Your task to perform on an android device: Open maps Image 0: 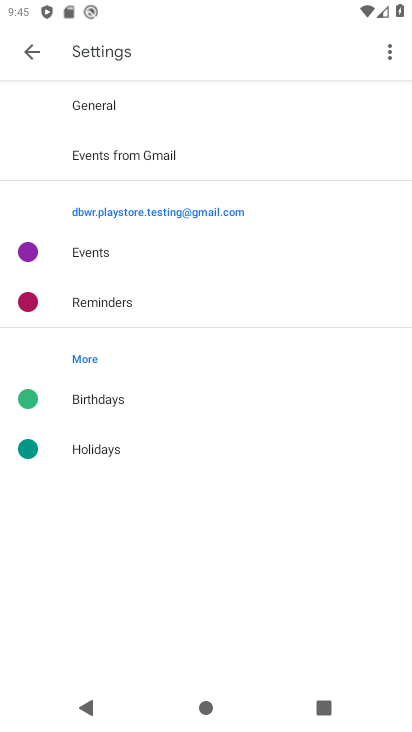
Step 0: press home button
Your task to perform on an android device: Open maps Image 1: 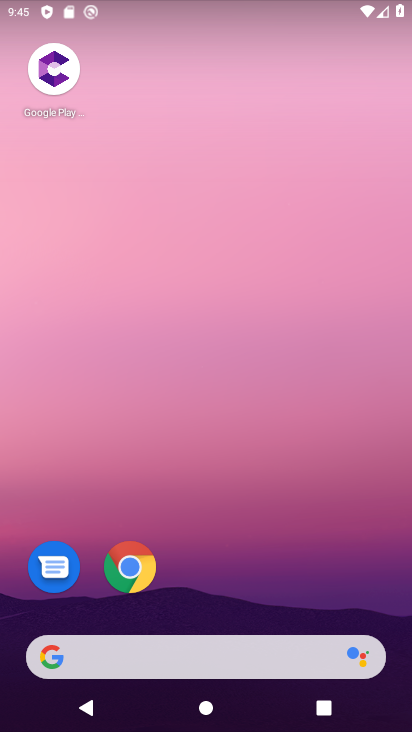
Step 1: drag from (264, 620) to (255, 157)
Your task to perform on an android device: Open maps Image 2: 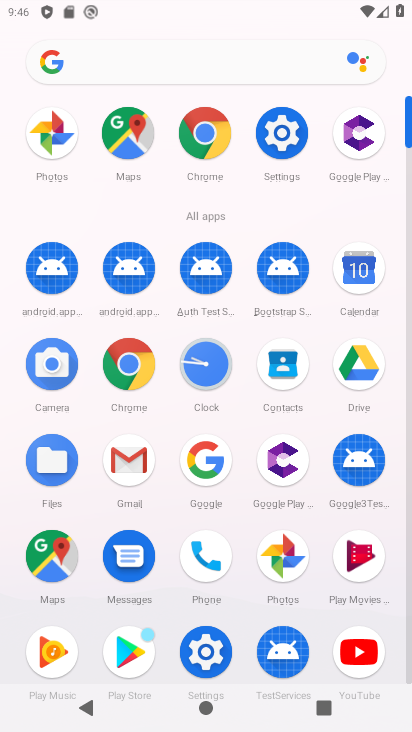
Step 2: click (66, 549)
Your task to perform on an android device: Open maps Image 3: 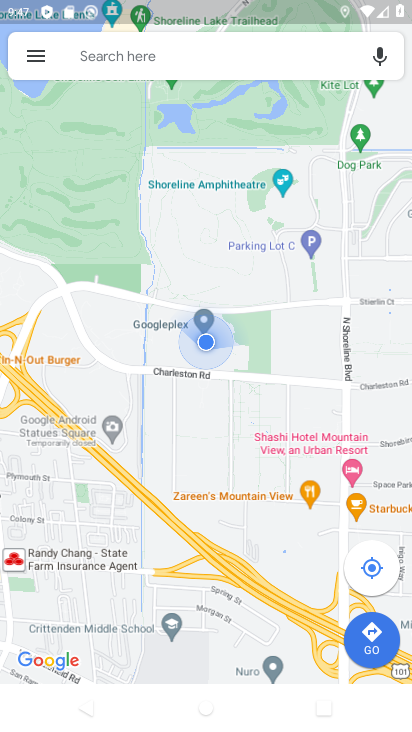
Step 3: task complete